Your task to perform on an android device: change the clock style Image 0: 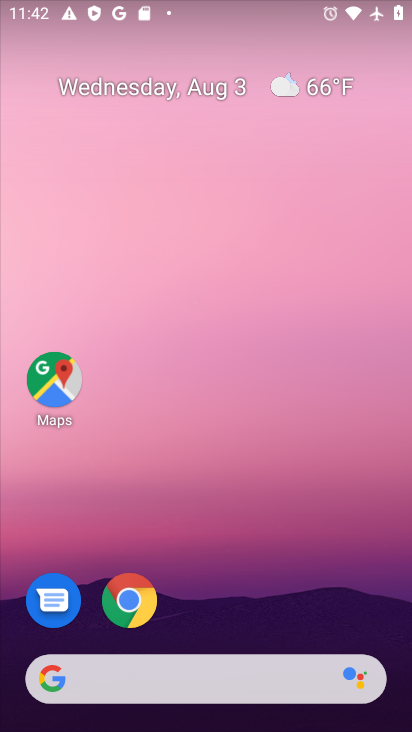
Step 0: drag from (202, 650) to (201, 1)
Your task to perform on an android device: change the clock style Image 1: 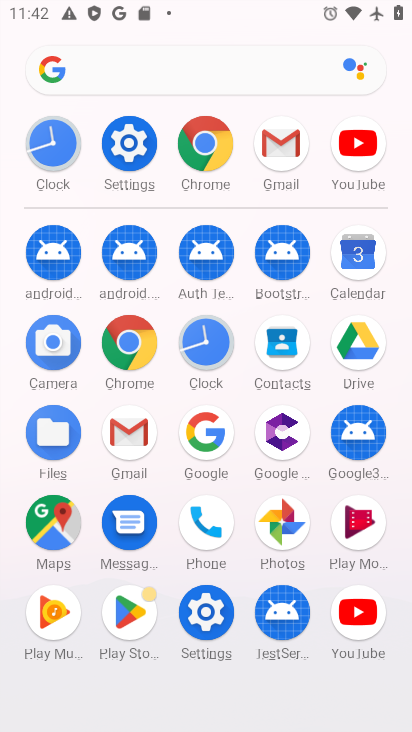
Step 1: click (207, 354)
Your task to perform on an android device: change the clock style Image 2: 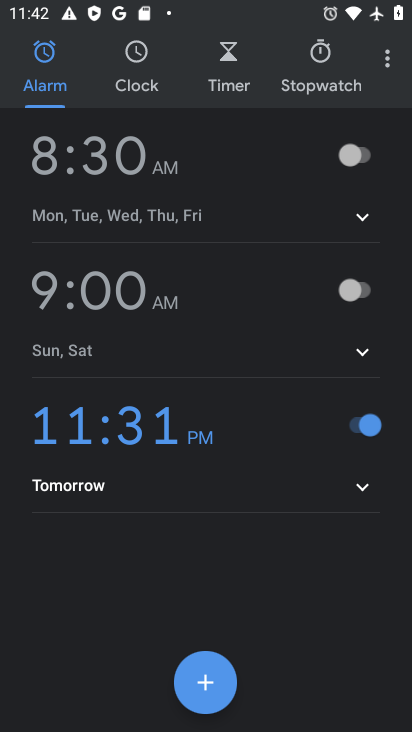
Step 2: click (390, 55)
Your task to perform on an android device: change the clock style Image 3: 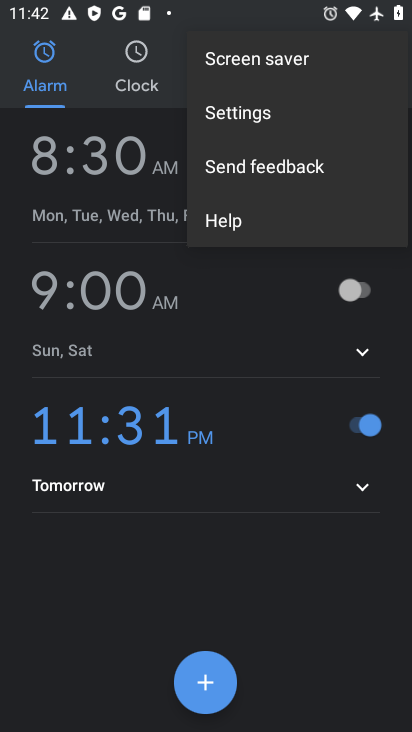
Step 3: click (274, 129)
Your task to perform on an android device: change the clock style Image 4: 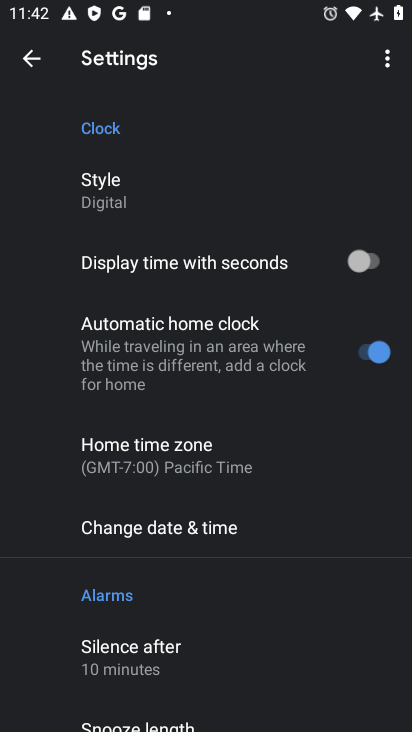
Step 4: click (88, 201)
Your task to perform on an android device: change the clock style Image 5: 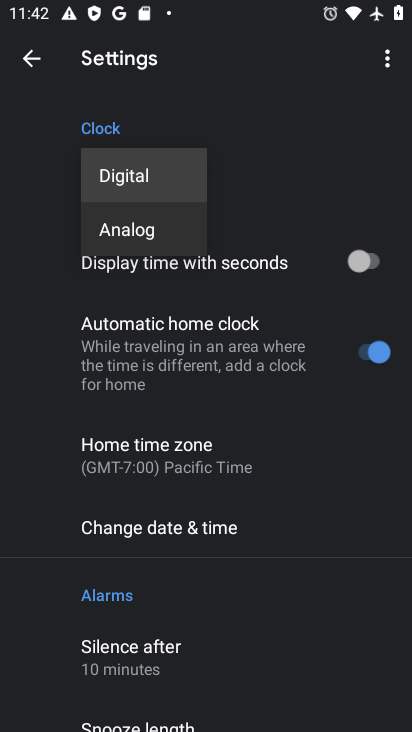
Step 5: click (107, 218)
Your task to perform on an android device: change the clock style Image 6: 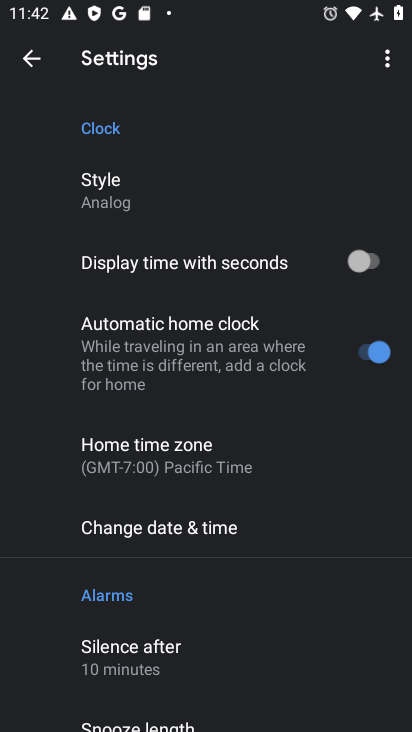
Step 6: task complete